Your task to perform on an android device: add a contact Image 0: 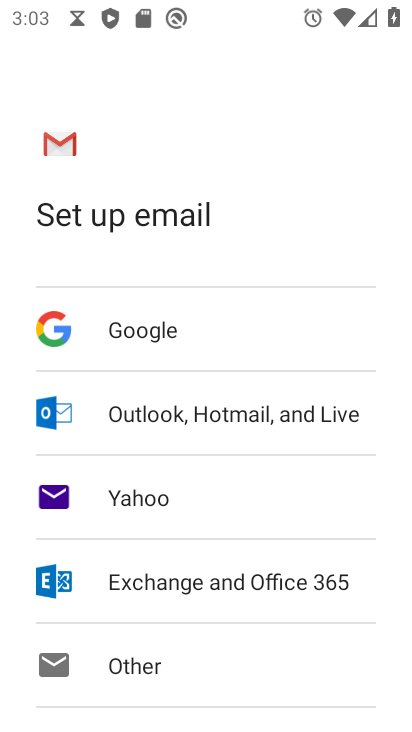
Step 0: press home button
Your task to perform on an android device: add a contact Image 1: 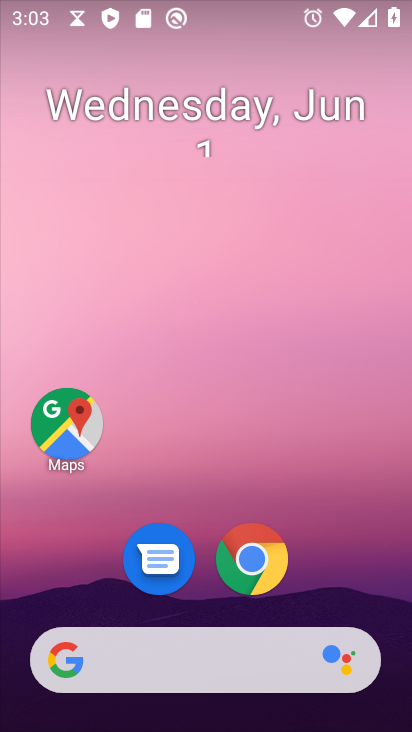
Step 1: drag from (319, 570) to (335, 61)
Your task to perform on an android device: add a contact Image 2: 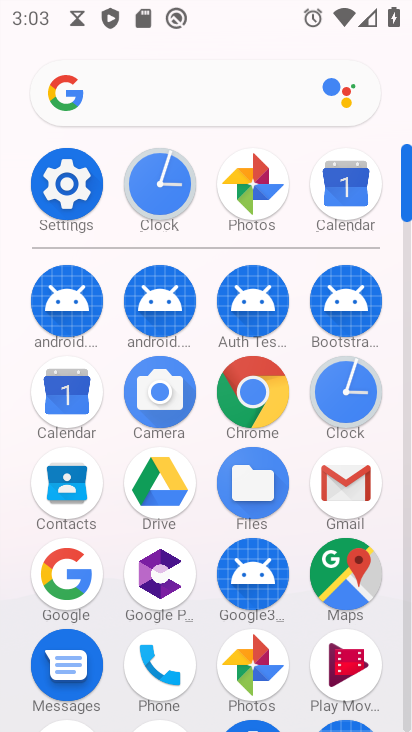
Step 2: click (67, 497)
Your task to perform on an android device: add a contact Image 3: 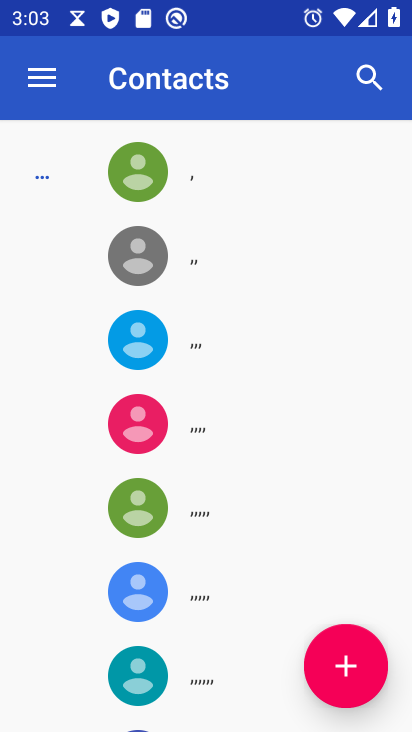
Step 3: click (354, 670)
Your task to perform on an android device: add a contact Image 4: 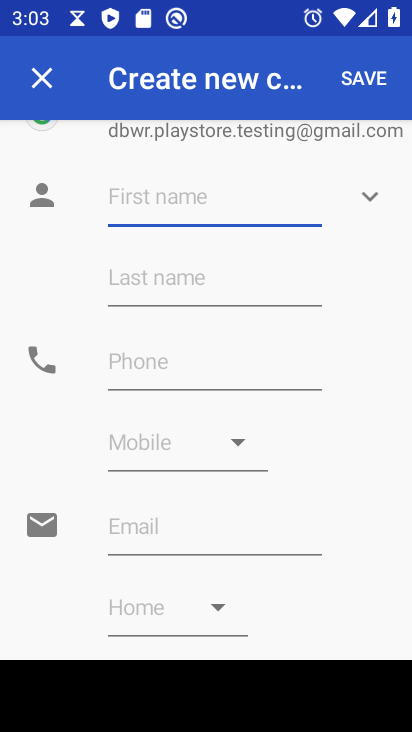
Step 4: type "cfgbvhjmnk"
Your task to perform on an android device: add a contact Image 5: 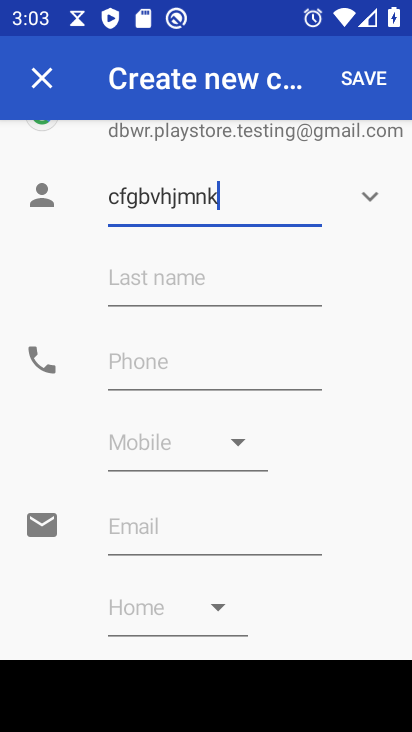
Step 5: click (136, 373)
Your task to perform on an android device: add a contact Image 6: 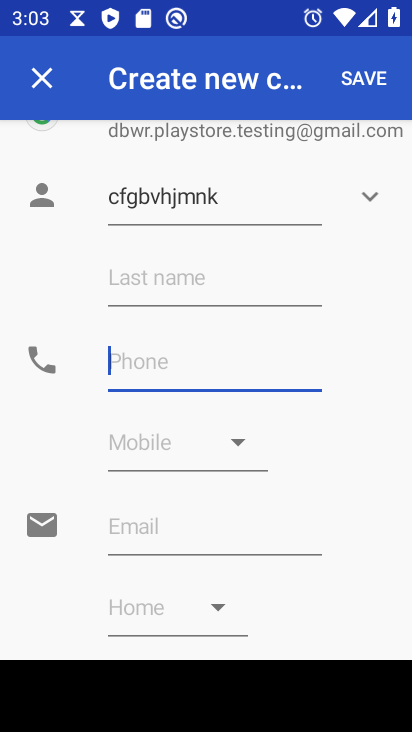
Step 6: type "4567890321"
Your task to perform on an android device: add a contact Image 7: 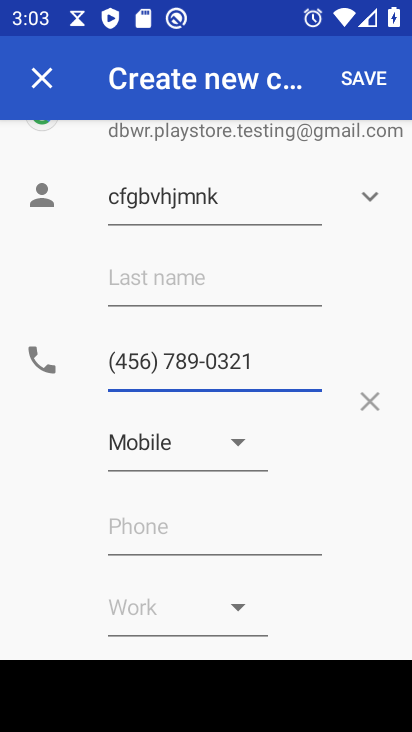
Step 7: click (363, 77)
Your task to perform on an android device: add a contact Image 8: 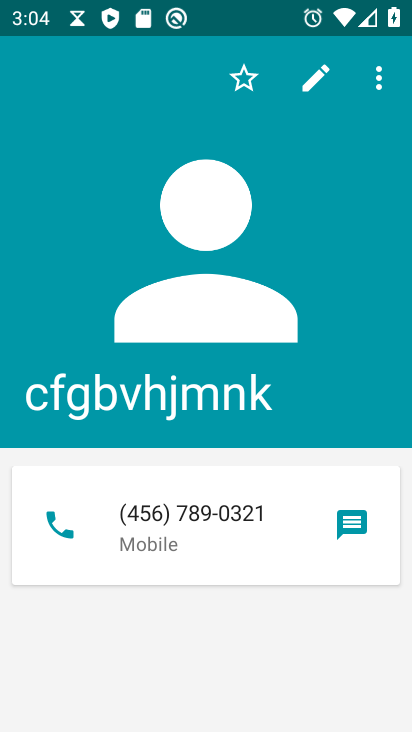
Step 8: task complete